Your task to perform on an android device: Add usb-a to the cart on walmart Image 0: 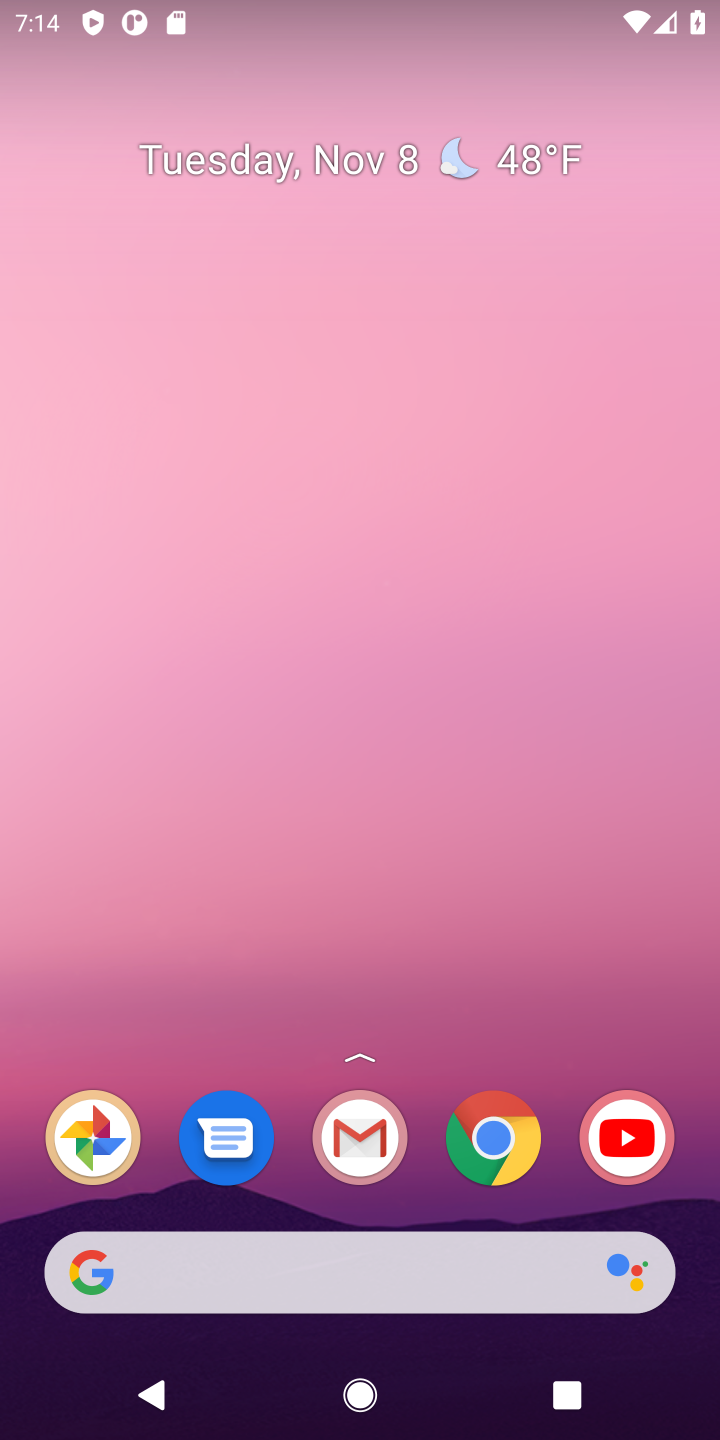
Step 0: click (509, 1130)
Your task to perform on an android device: Add usb-a to the cart on walmart Image 1: 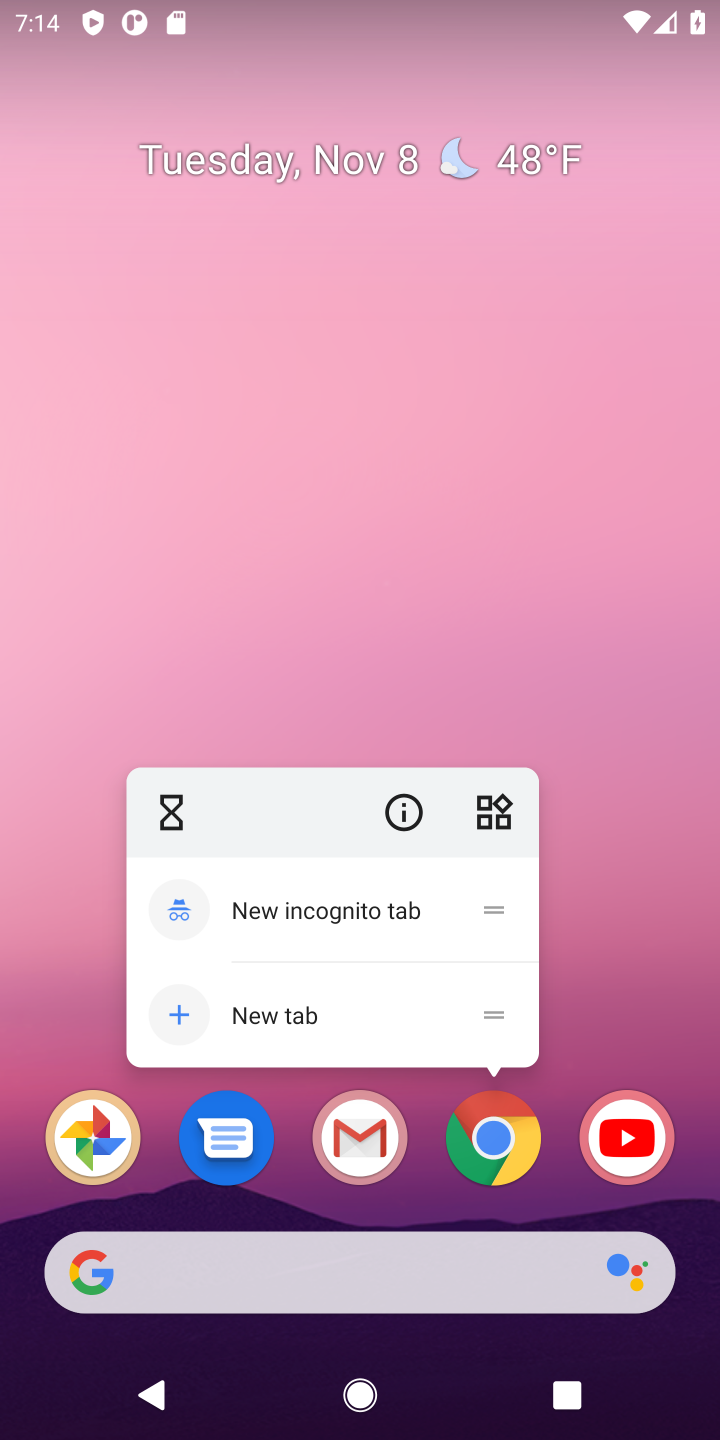
Step 1: click (498, 1132)
Your task to perform on an android device: Add usb-a to the cart on walmart Image 2: 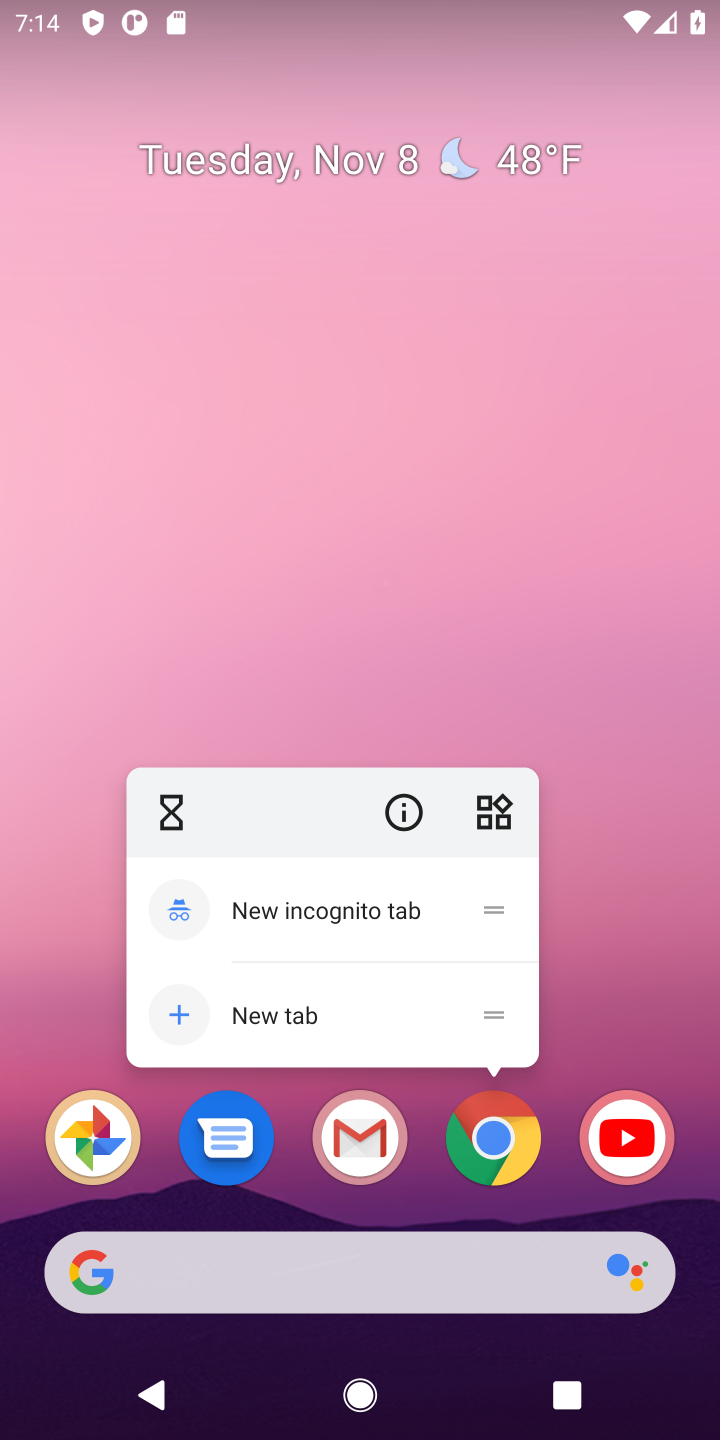
Step 2: click (498, 1136)
Your task to perform on an android device: Add usb-a to the cart on walmart Image 3: 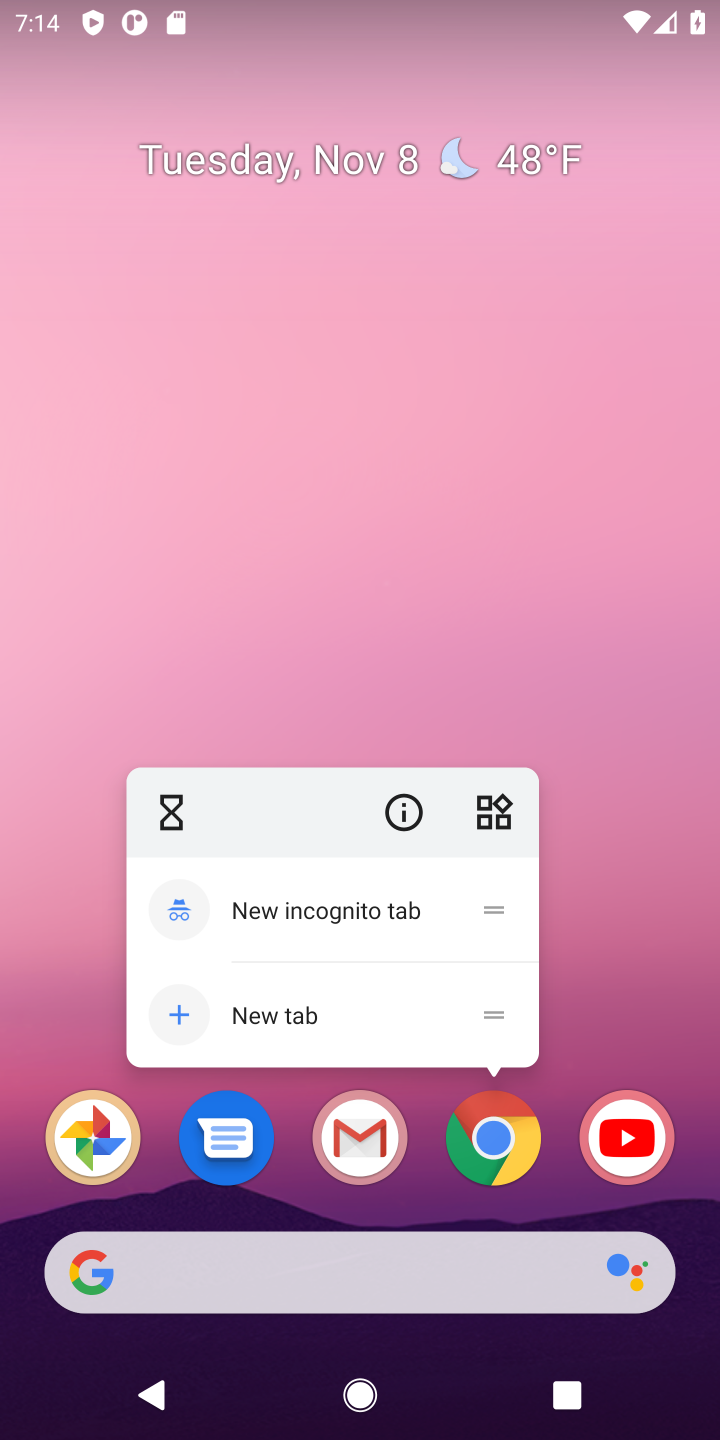
Step 3: click (498, 1136)
Your task to perform on an android device: Add usb-a to the cart on walmart Image 4: 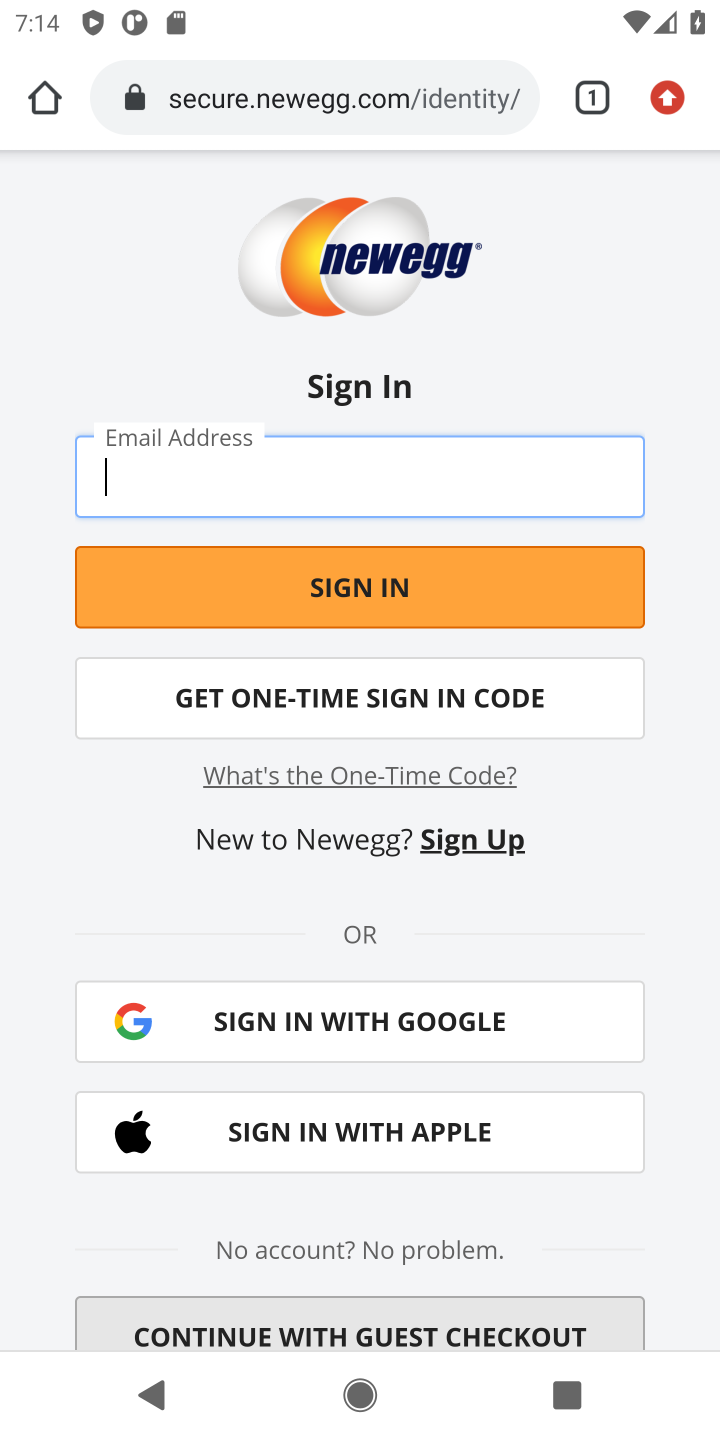
Step 4: click (399, 84)
Your task to perform on an android device: Add usb-a to the cart on walmart Image 5: 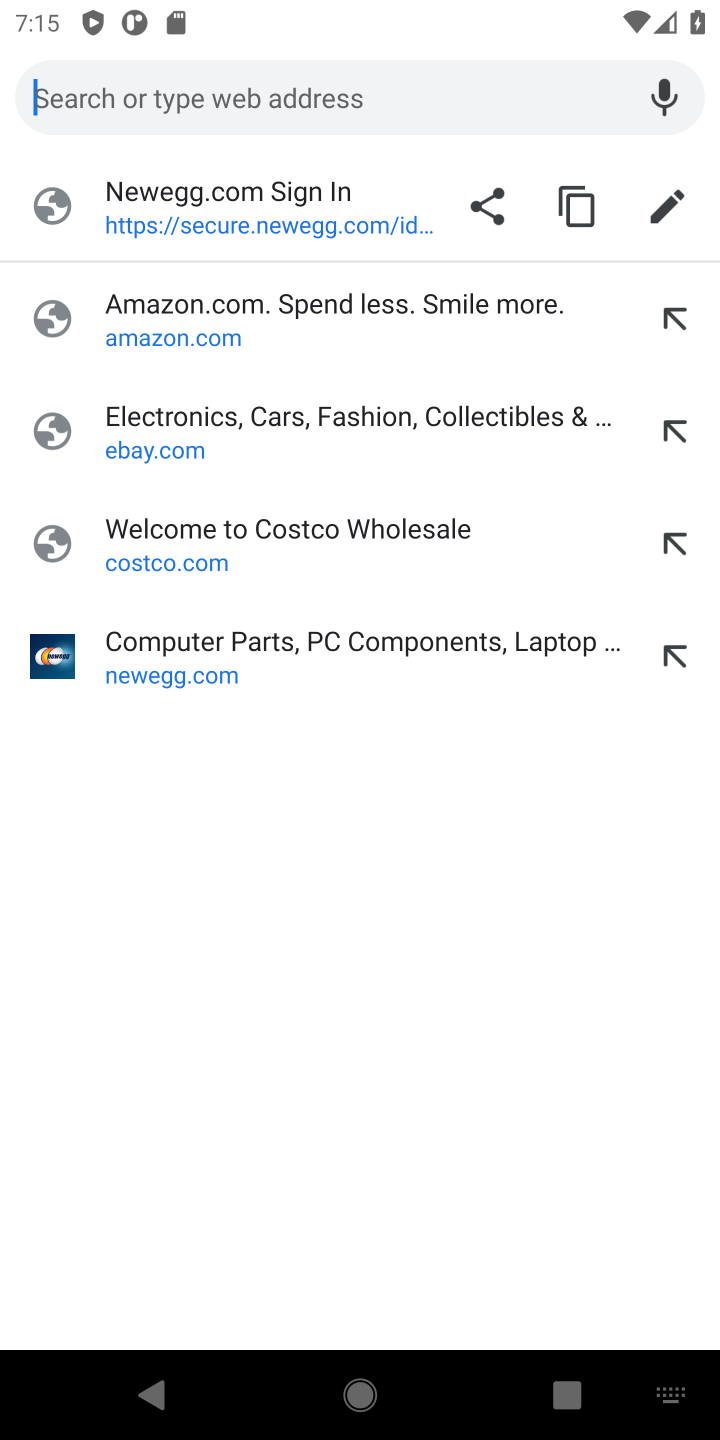
Step 5: type "walmart"
Your task to perform on an android device: Add usb-a to the cart on walmart Image 6: 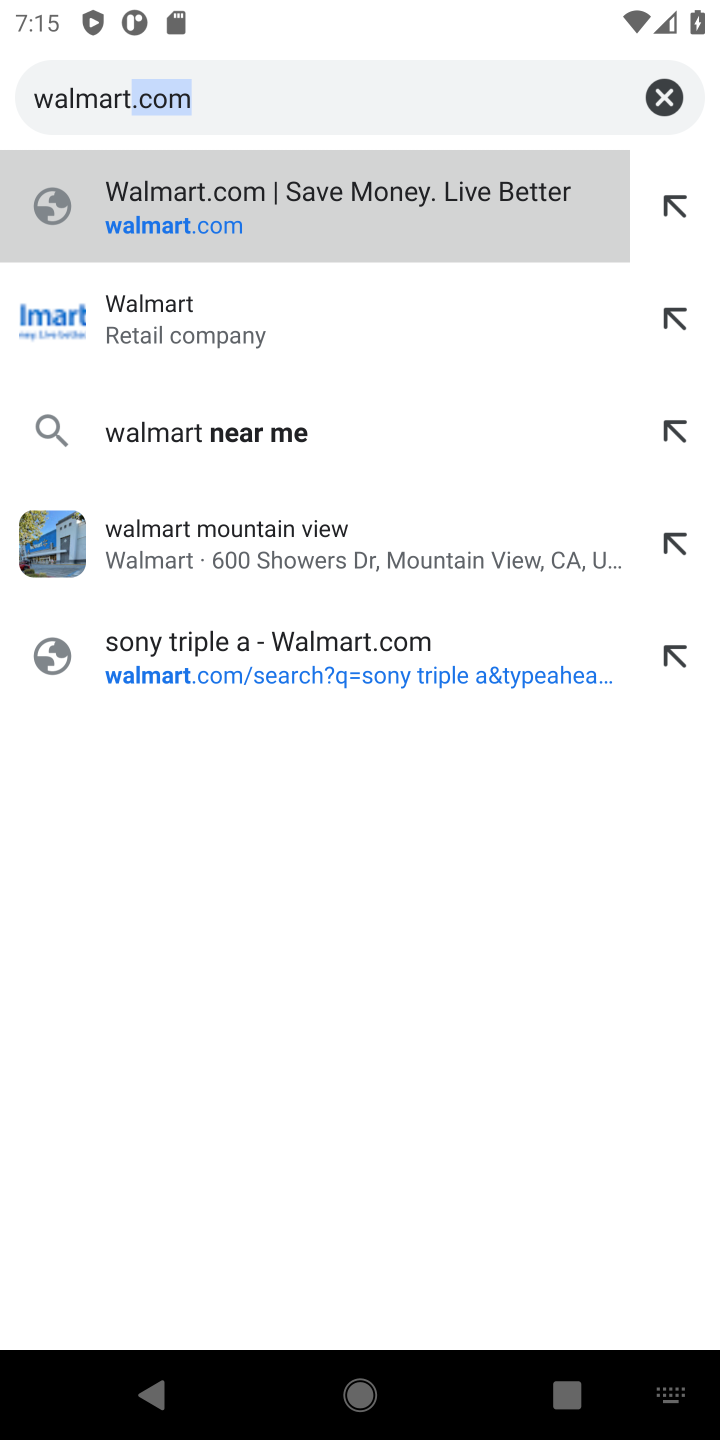
Step 6: press enter
Your task to perform on an android device: Add usb-a to the cart on walmart Image 7: 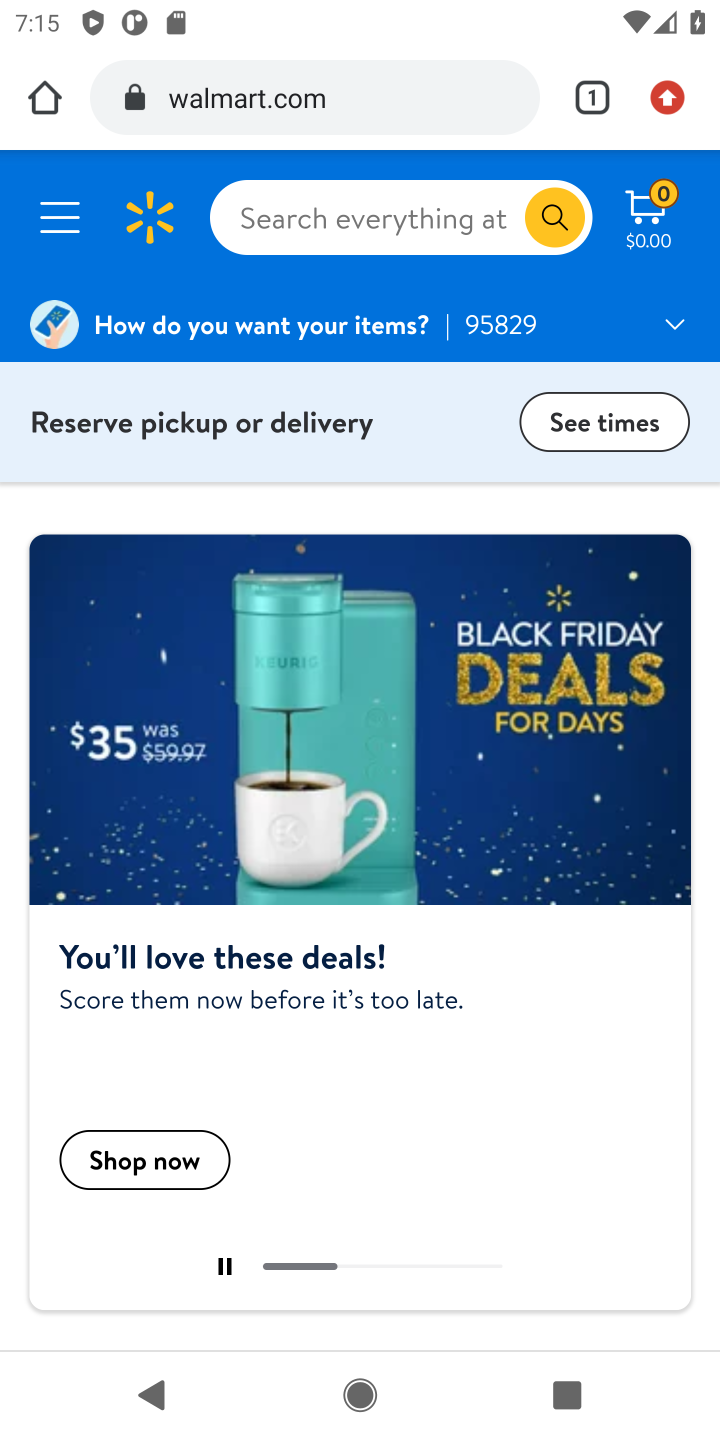
Step 7: click (351, 205)
Your task to perform on an android device: Add usb-a to the cart on walmart Image 8: 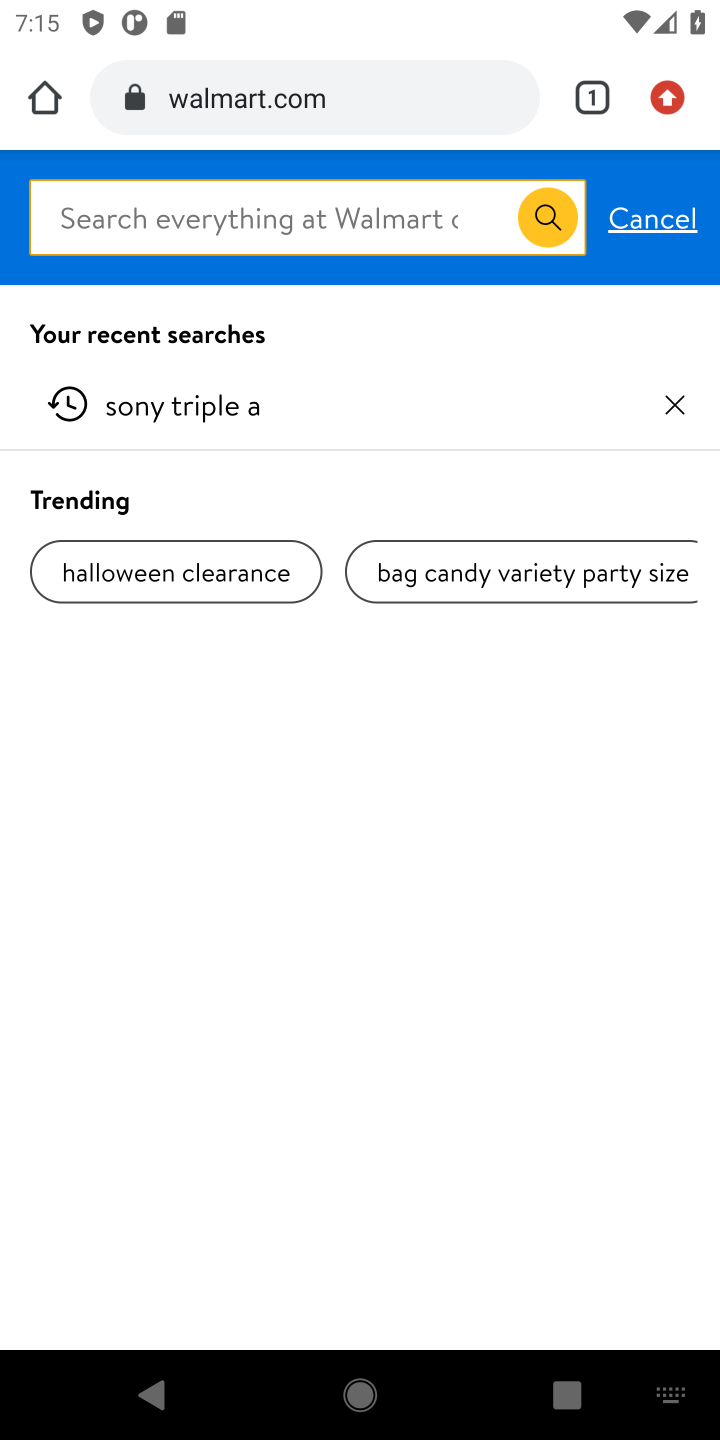
Step 8: type "usb-a "
Your task to perform on an android device: Add usb-a to the cart on walmart Image 9: 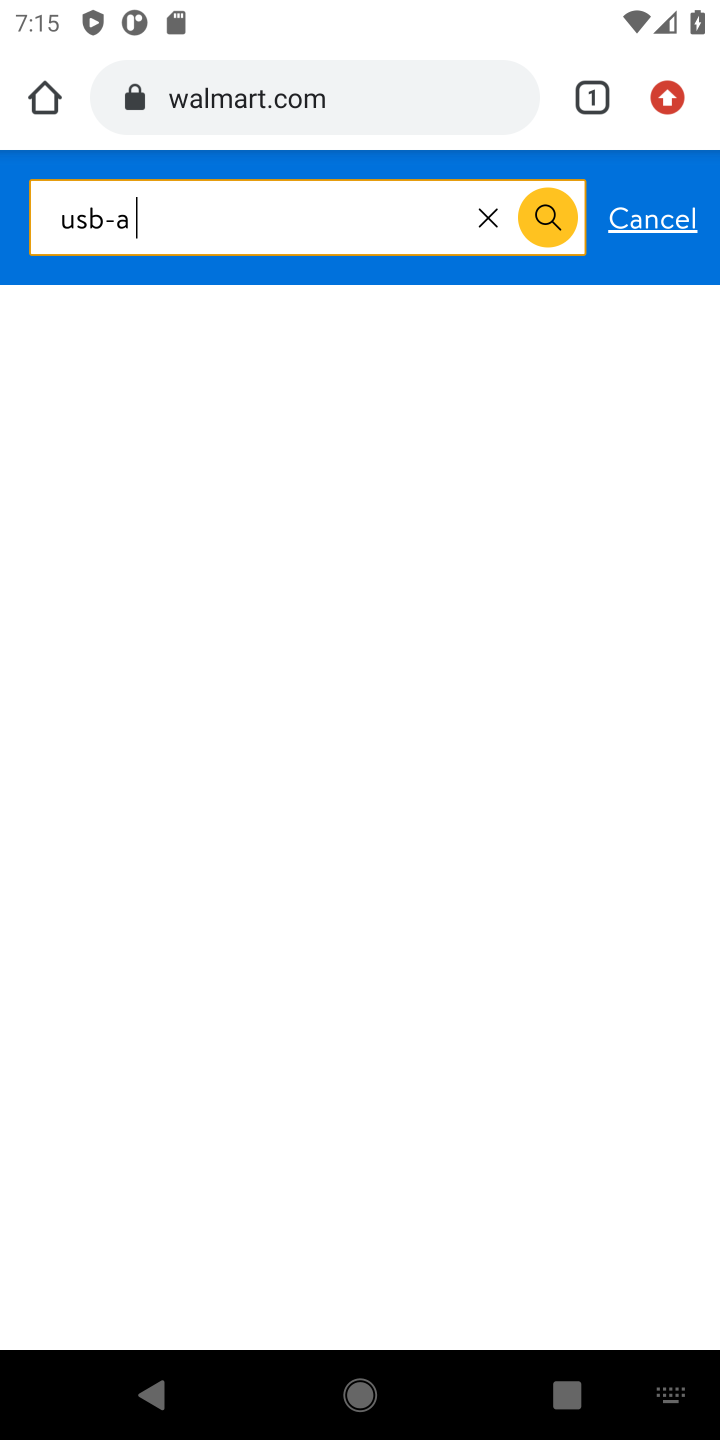
Step 9: press enter
Your task to perform on an android device: Add usb-a to the cart on walmart Image 10: 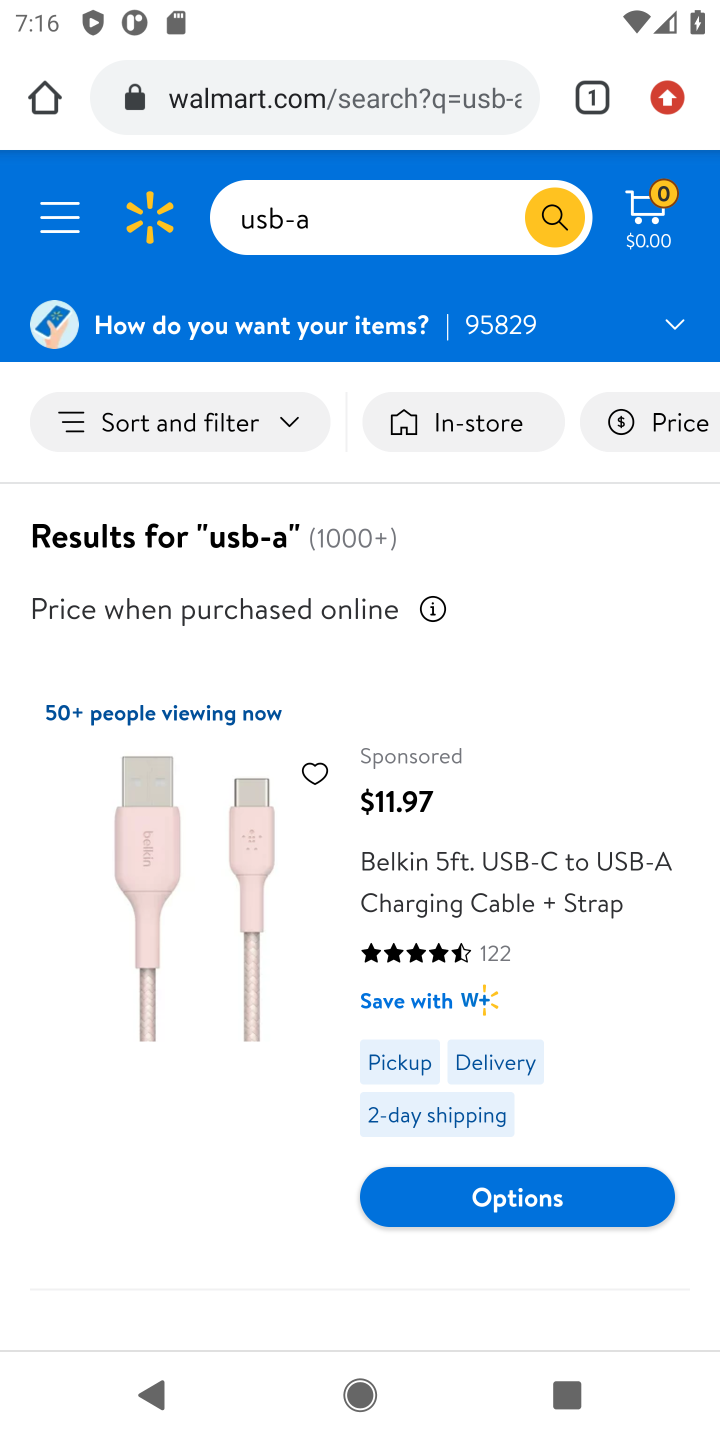
Step 10: task complete